Your task to perform on an android device: change text size in settings app Image 0: 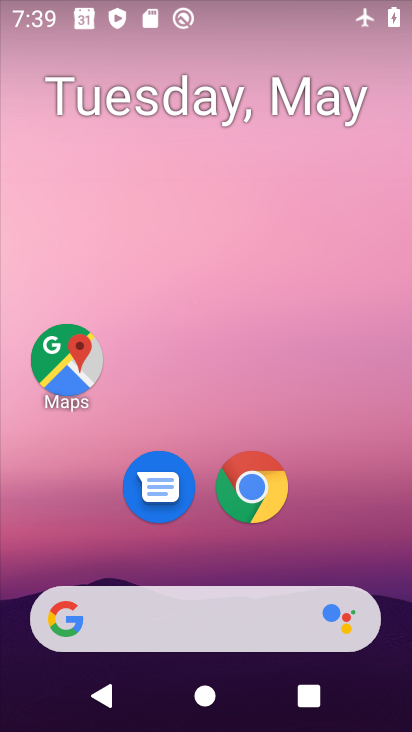
Step 0: drag from (370, 556) to (364, 110)
Your task to perform on an android device: change text size in settings app Image 1: 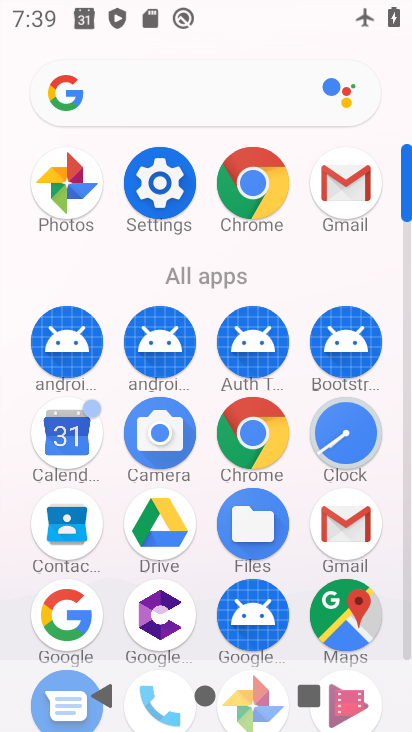
Step 1: click (158, 191)
Your task to perform on an android device: change text size in settings app Image 2: 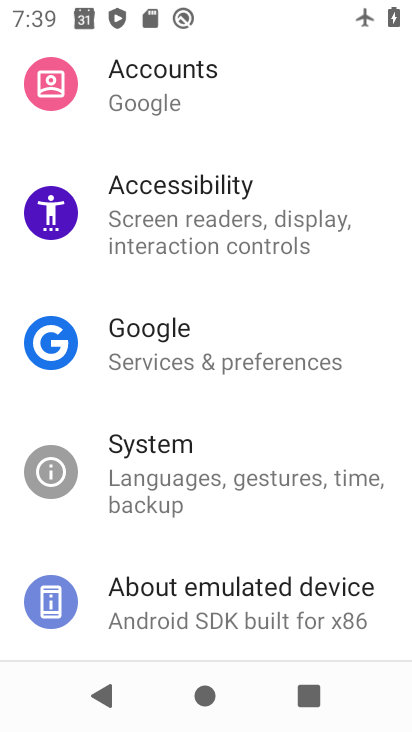
Step 2: drag from (390, 445) to (383, 305)
Your task to perform on an android device: change text size in settings app Image 3: 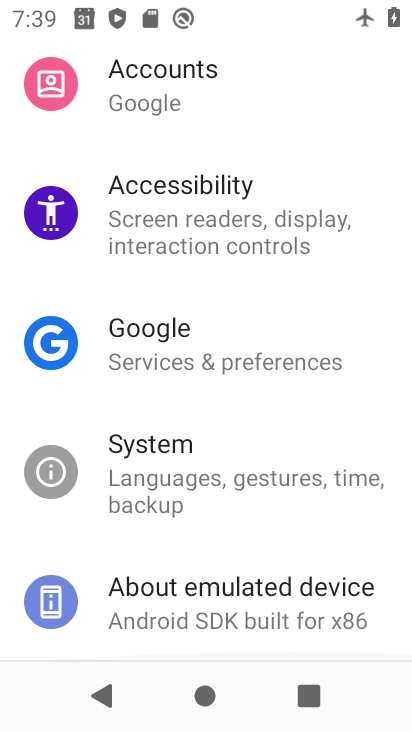
Step 3: drag from (385, 257) to (377, 316)
Your task to perform on an android device: change text size in settings app Image 4: 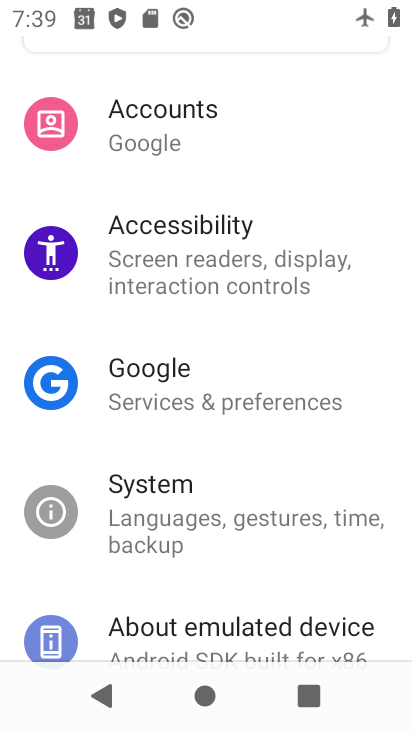
Step 4: drag from (379, 200) to (372, 324)
Your task to perform on an android device: change text size in settings app Image 5: 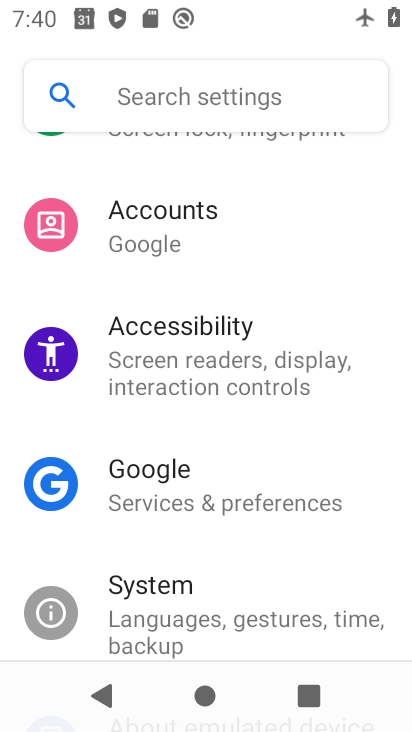
Step 5: drag from (377, 240) to (381, 349)
Your task to perform on an android device: change text size in settings app Image 6: 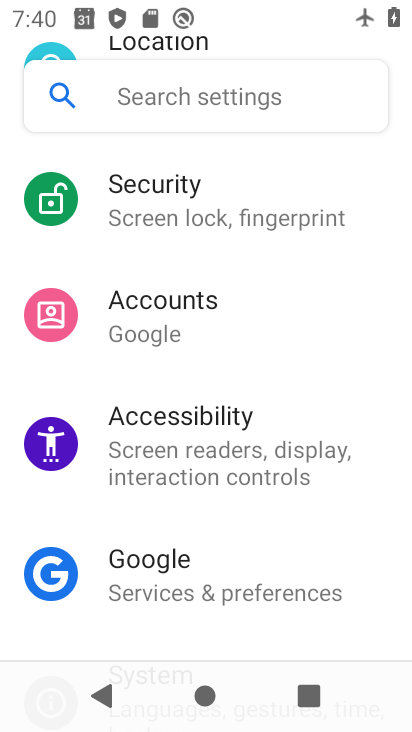
Step 6: drag from (373, 272) to (373, 375)
Your task to perform on an android device: change text size in settings app Image 7: 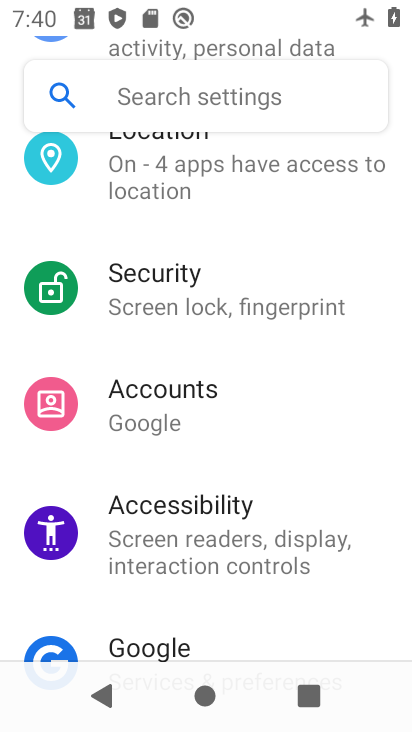
Step 7: drag from (373, 242) to (373, 366)
Your task to perform on an android device: change text size in settings app Image 8: 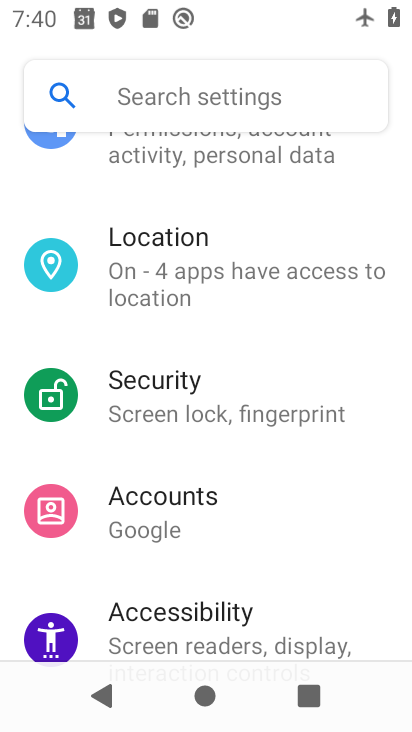
Step 8: drag from (369, 222) to (380, 341)
Your task to perform on an android device: change text size in settings app Image 9: 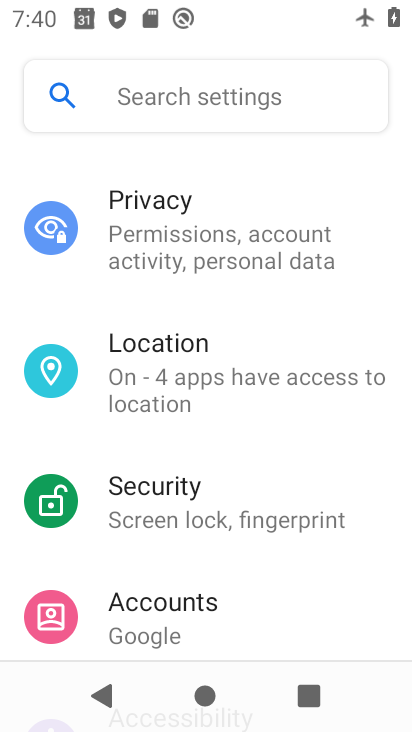
Step 9: drag from (391, 220) to (393, 317)
Your task to perform on an android device: change text size in settings app Image 10: 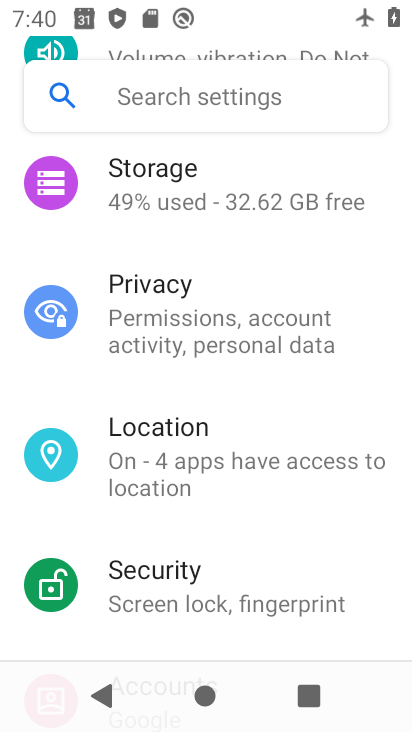
Step 10: drag from (372, 231) to (373, 342)
Your task to perform on an android device: change text size in settings app Image 11: 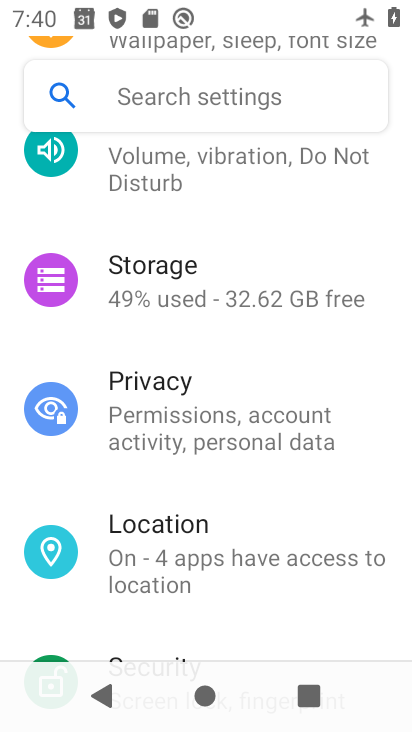
Step 11: drag from (370, 201) to (368, 340)
Your task to perform on an android device: change text size in settings app Image 12: 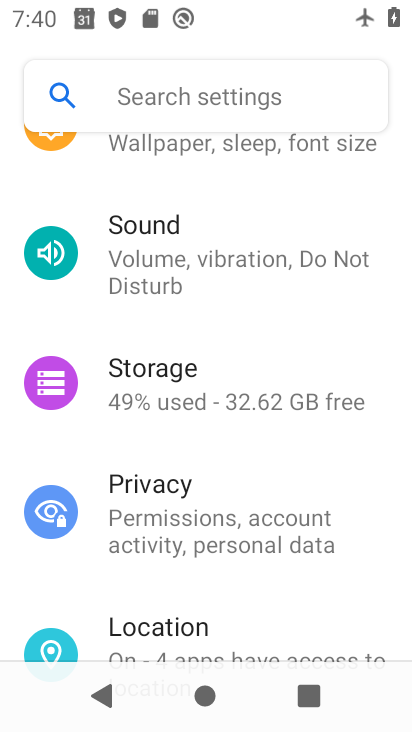
Step 12: drag from (370, 201) to (357, 323)
Your task to perform on an android device: change text size in settings app Image 13: 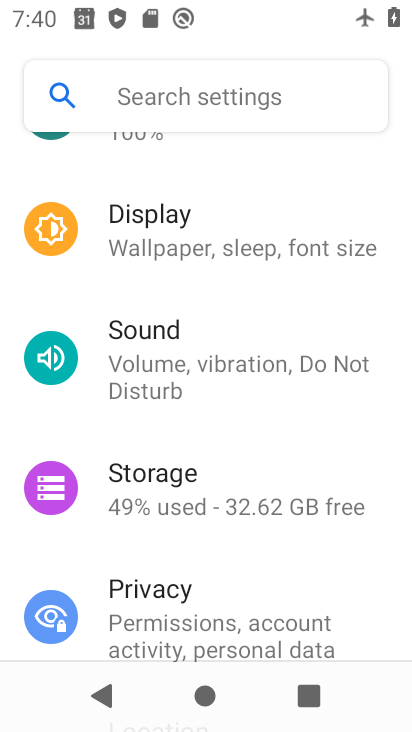
Step 13: drag from (367, 183) to (357, 305)
Your task to perform on an android device: change text size in settings app Image 14: 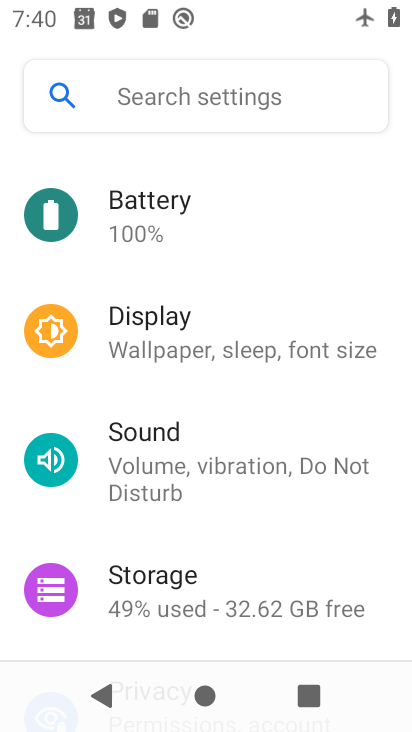
Step 14: drag from (373, 178) to (350, 335)
Your task to perform on an android device: change text size in settings app Image 15: 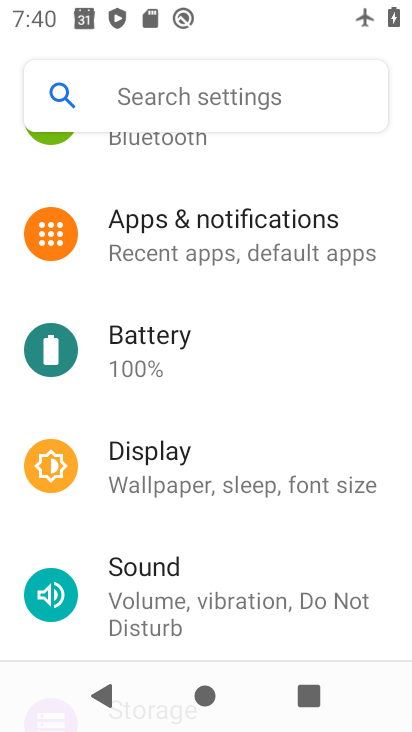
Step 15: drag from (366, 190) to (351, 371)
Your task to perform on an android device: change text size in settings app Image 16: 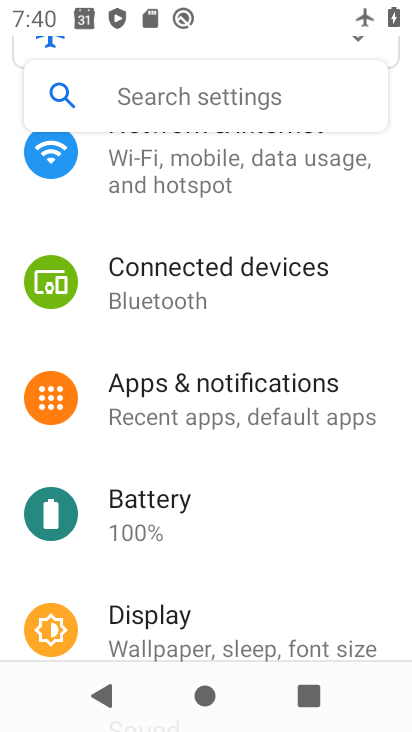
Step 16: drag from (302, 510) to (333, 321)
Your task to perform on an android device: change text size in settings app Image 17: 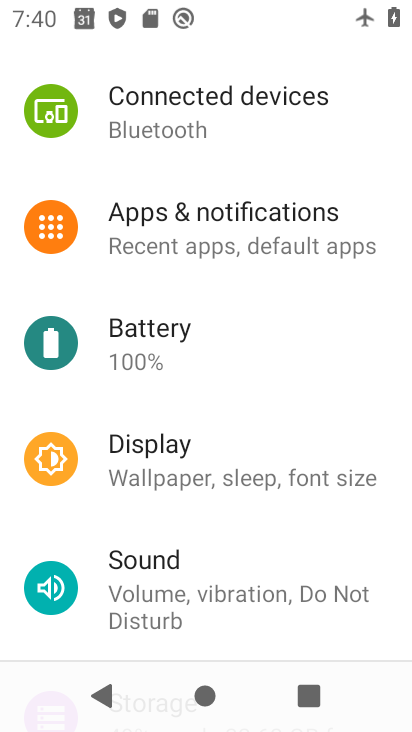
Step 17: drag from (336, 429) to (339, 272)
Your task to perform on an android device: change text size in settings app Image 18: 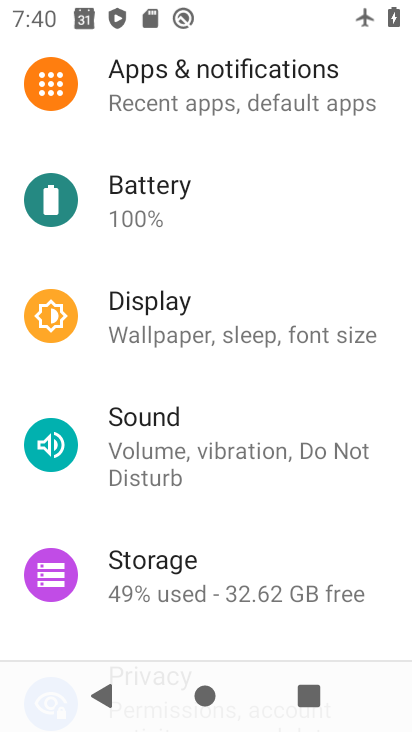
Step 18: click (282, 334)
Your task to perform on an android device: change text size in settings app Image 19: 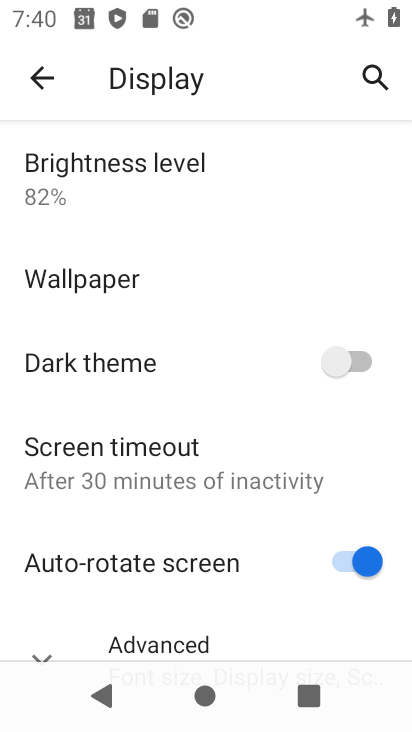
Step 19: drag from (260, 592) to (276, 410)
Your task to perform on an android device: change text size in settings app Image 20: 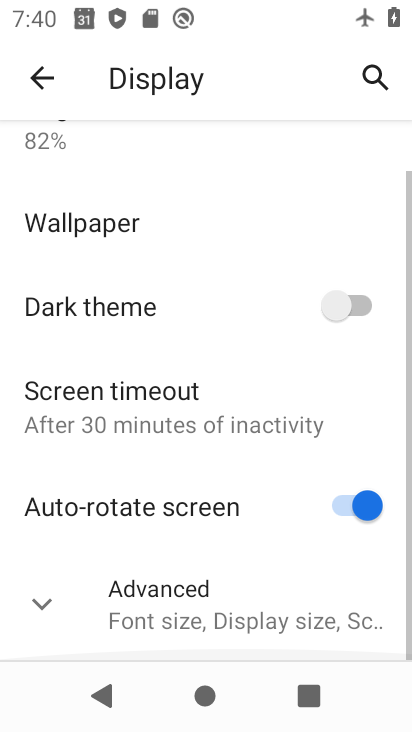
Step 20: click (244, 606)
Your task to perform on an android device: change text size in settings app Image 21: 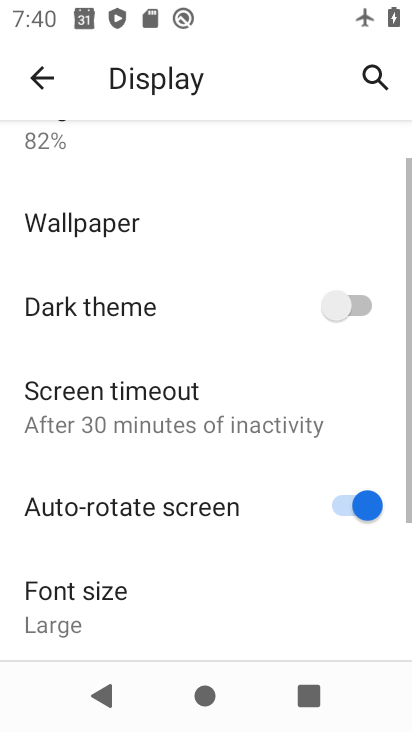
Step 21: drag from (270, 552) to (281, 380)
Your task to perform on an android device: change text size in settings app Image 22: 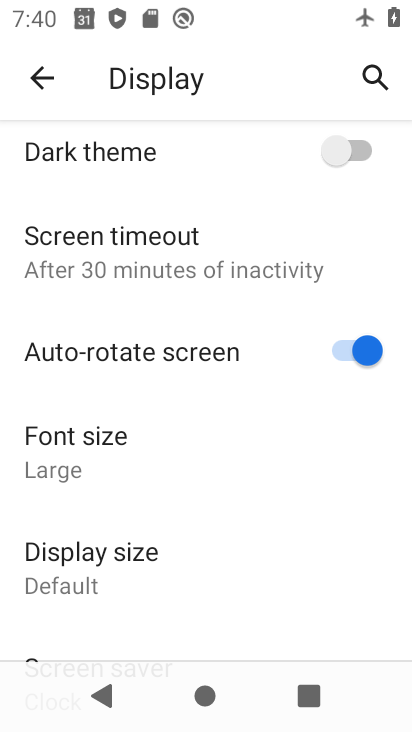
Step 22: drag from (274, 534) to (266, 385)
Your task to perform on an android device: change text size in settings app Image 23: 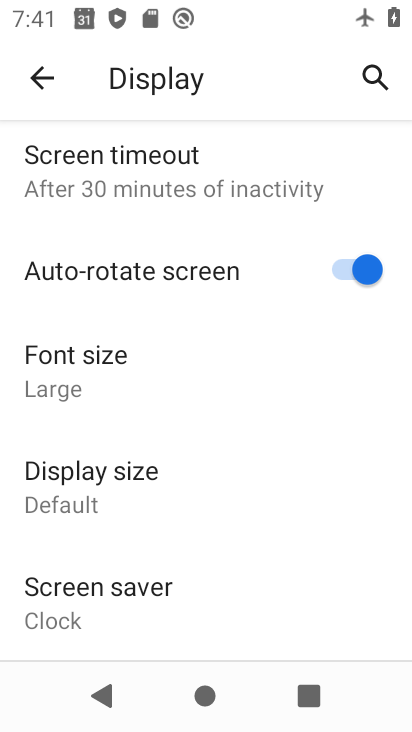
Step 23: click (142, 384)
Your task to perform on an android device: change text size in settings app Image 24: 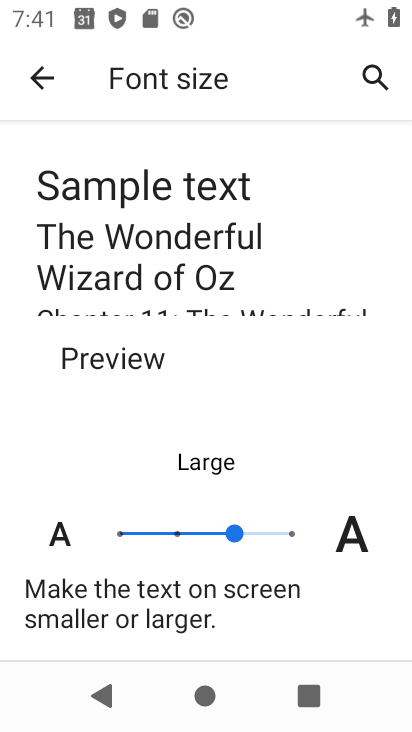
Step 24: click (175, 532)
Your task to perform on an android device: change text size in settings app Image 25: 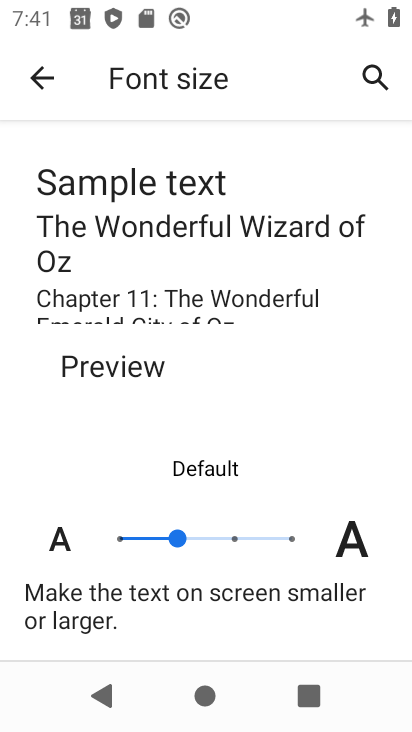
Step 25: task complete